Your task to perform on an android device: Show me productivity apps on the Play Store Image 0: 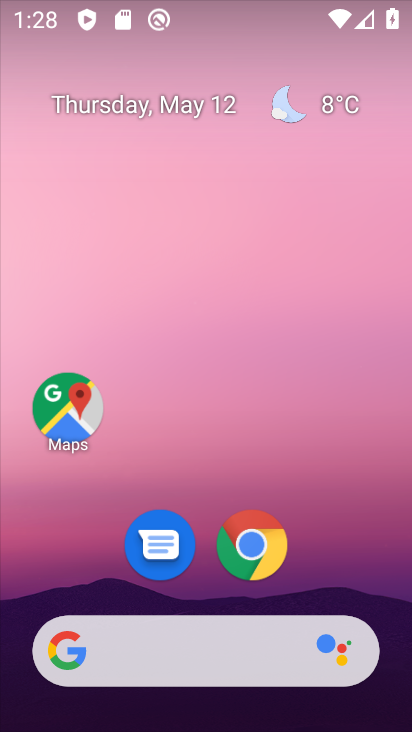
Step 0: drag from (195, 591) to (212, 240)
Your task to perform on an android device: Show me productivity apps on the Play Store Image 1: 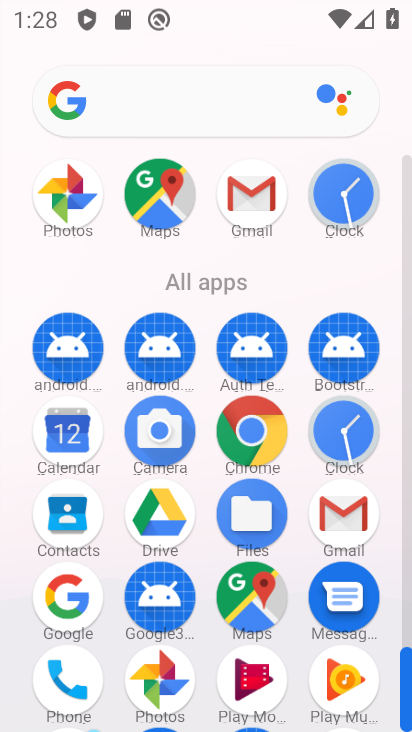
Step 1: drag from (201, 627) to (198, 355)
Your task to perform on an android device: Show me productivity apps on the Play Store Image 2: 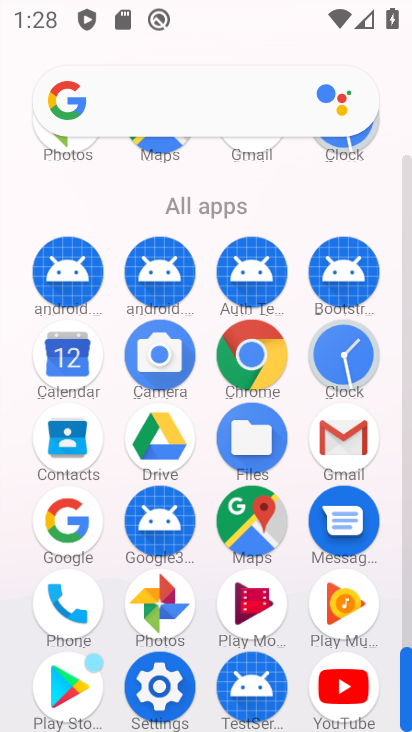
Step 2: click (63, 689)
Your task to perform on an android device: Show me productivity apps on the Play Store Image 3: 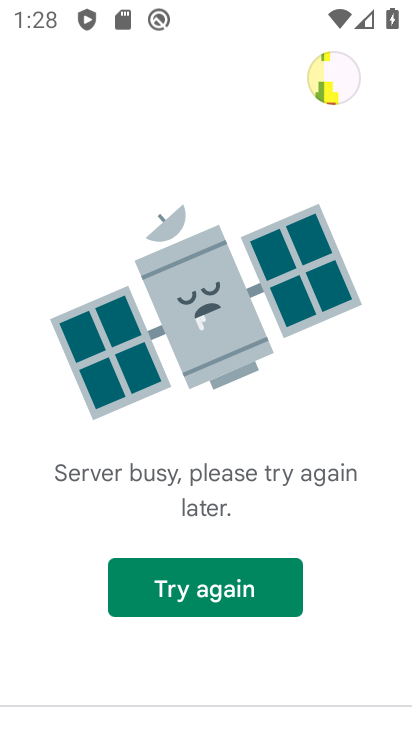
Step 3: click (176, 592)
Your task to perform on an android device: Show me productivity apps on the Play Store Image 4: 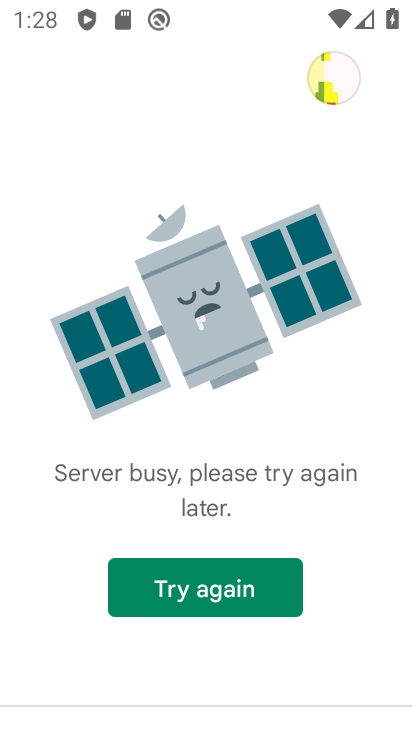
Step 4: click (200, 606)
Your task to perform on an android device: Show me productivity apps on the Play Store Image 5: 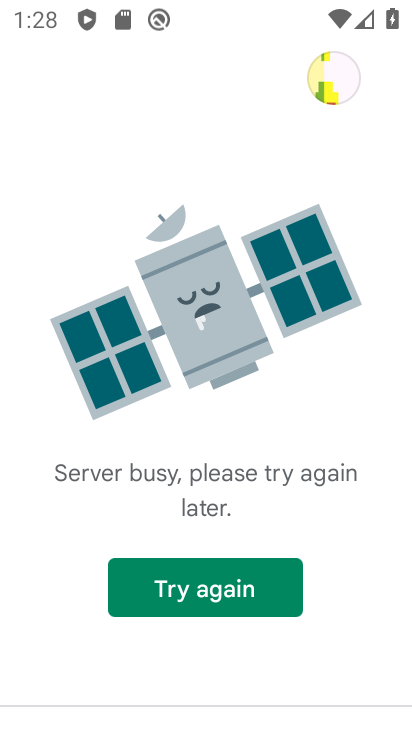
Step 5: task complete